Your task to perform on an android device: turn off notifications settings in the gmail app Image 0: 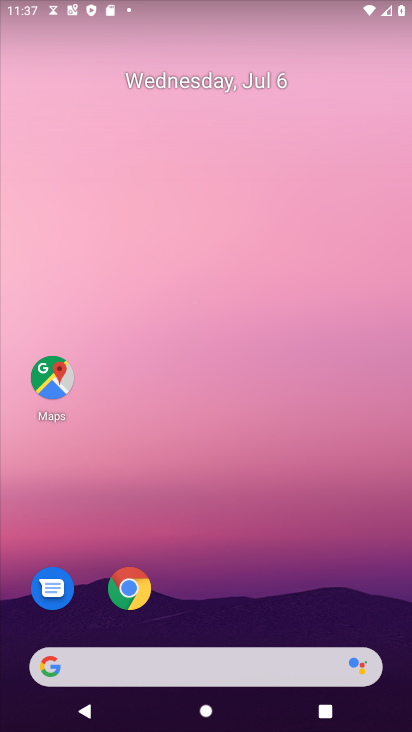
Step 0: drag from (281, 579) to (264, 184)
Your task to perform on an android device: turn off notifications settings in the gmail app Image 1: 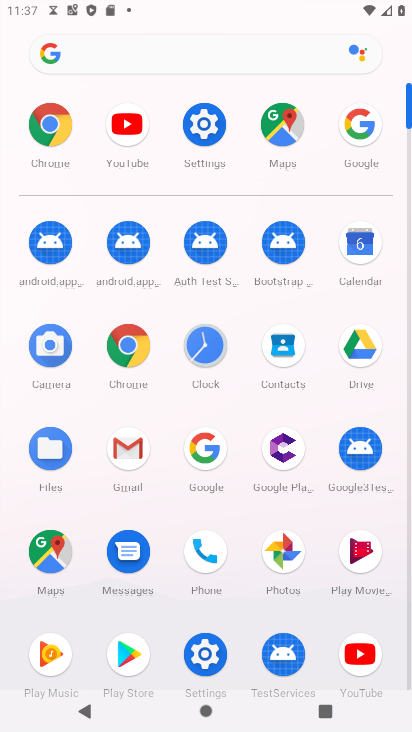
Step 1: click (128, 435)
Your task to perform on an android device: turn off notifications settings in the gmail app Image 2: 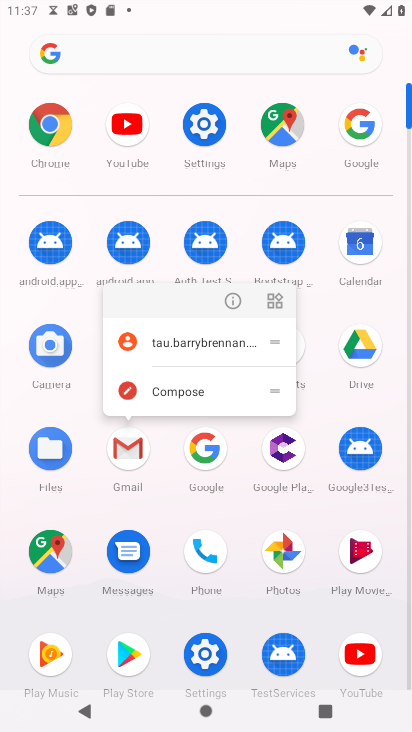
Step 2: click (117, 437)
Your task to perform on an android device: turn off notifications settings in the gmail app Image 3: 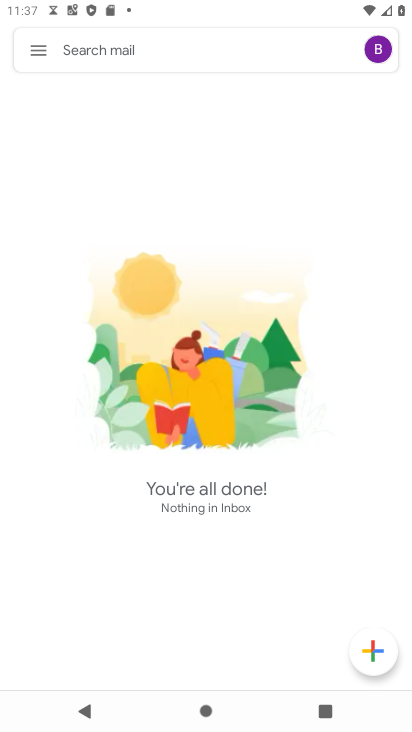
Step 3: click (32, 54)
Your task to perform on an android device: turn off notifications settings in the gmail app Image 4: 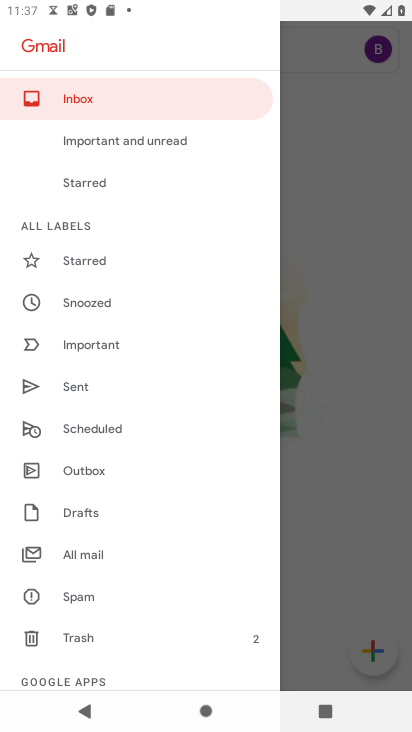
Step 4: drag from (91, 586) to (149, 243)
Your task to perform on an android device: turn off notifications settings in the gmail app Image 5: 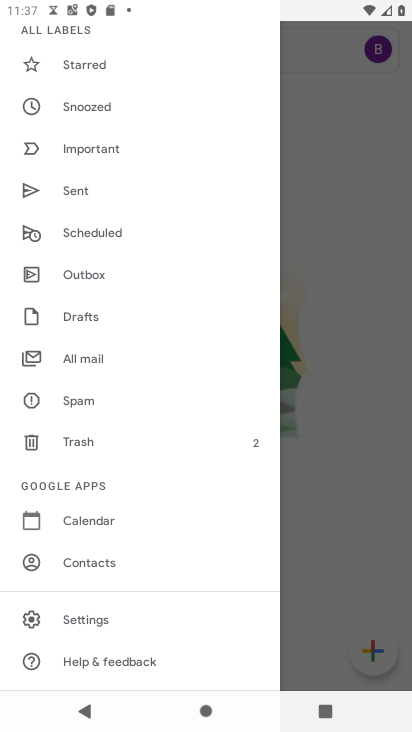
Step 5: click (77, 617)
Your task to perform on an android device: turn off notifications settings in the gmail app Image 6: 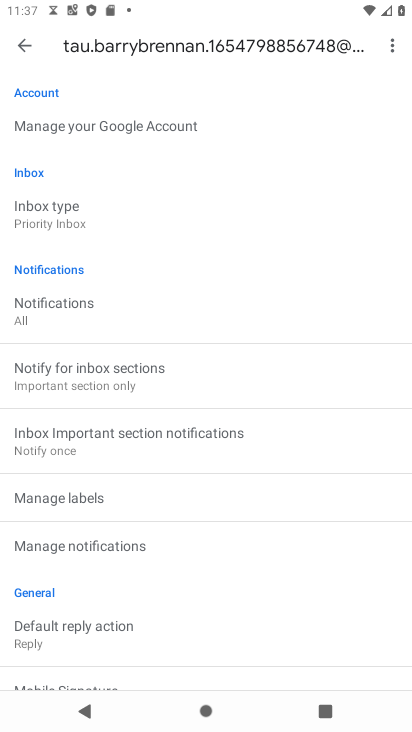
Step 6: click (43, 303)
Your task to perform on an android device: turn off notifications settings in the gmail app Image 7: 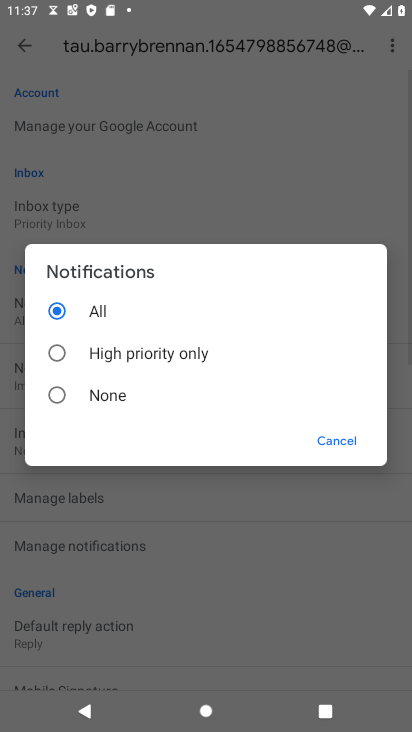
Step 7: click (103, 398)
Your task to perform on an android device: turn off notifications settings in the gmail app Image 8: 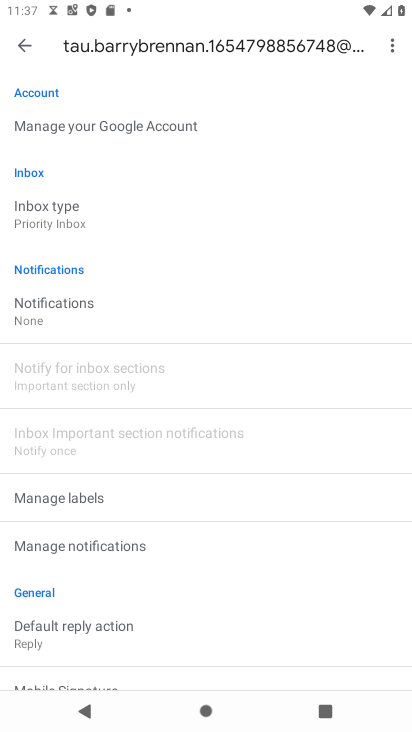
Step 8: task complete